Your task to perform on an android device: Go to Maps Image 0: 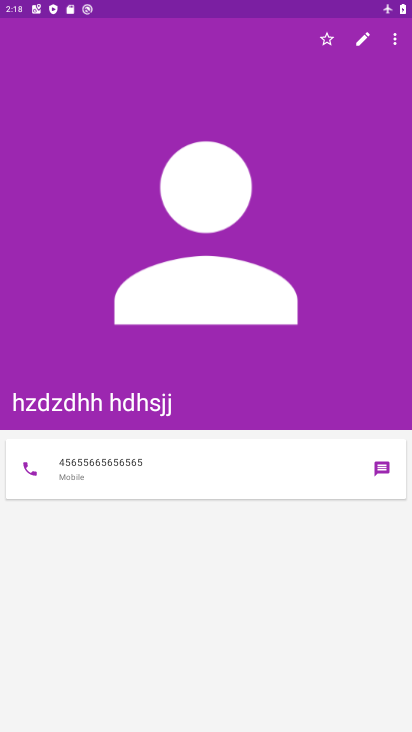
Step 0: press back button
Your task to perform on an android device: Go to Maps Image 1: 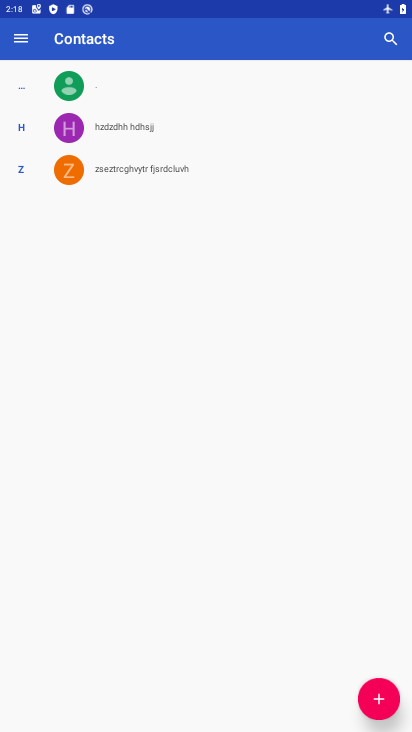
Step 1: press home button
Your task to perform on an android device: Go to Maps Image 2: 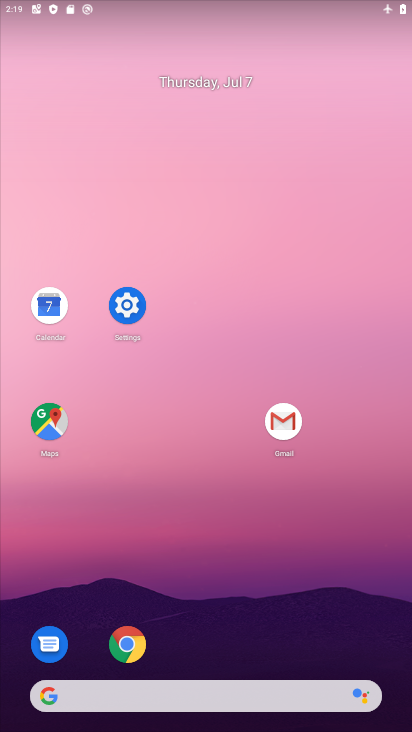
Step 2: click (49, 416)
Your task to perform on an android device: Go to Maps Image 3: 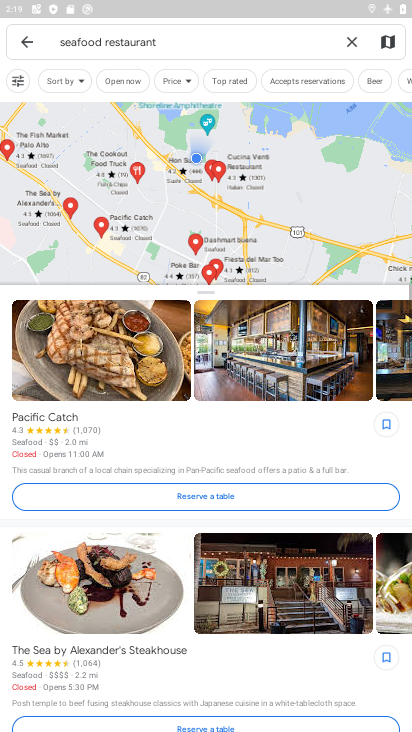
Step 3: click (26, 38)
Your task to perform on an android device: Go to Maps Image 4: 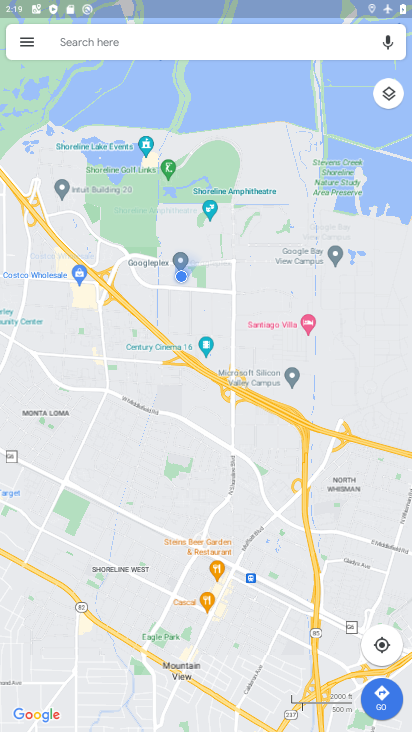
Step 4: task complete